Your task to perform on an android device: snooze an email in the gmail app Image 0: 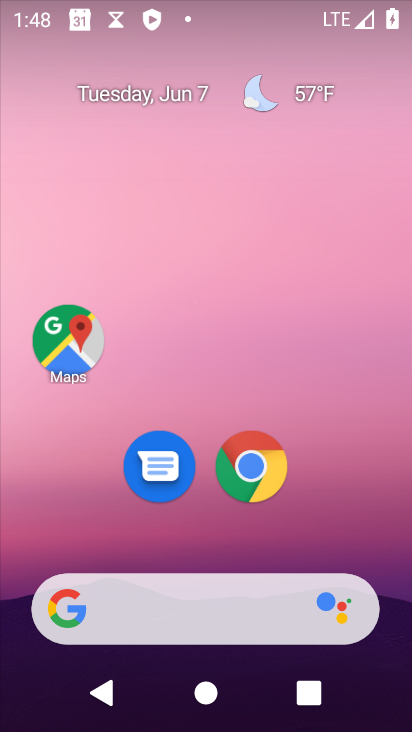
Step 0: drag from (180, 539) to (232, 82)
Your task to perform on an android device: snooze an email in the gmail app Image 1: 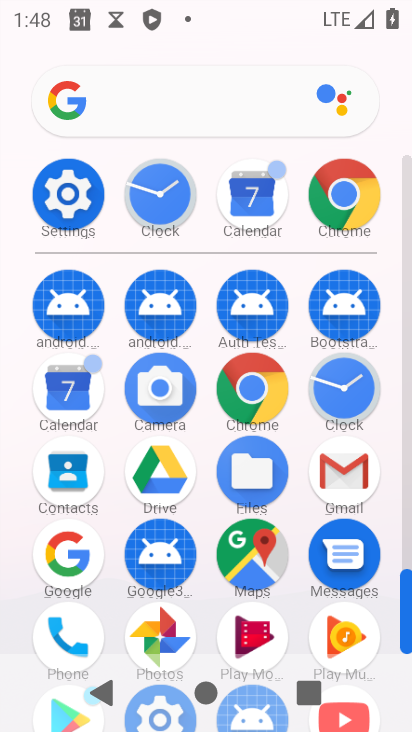
Step 1: click (353, 467)
Your task to perform on an android device: snooze an email in the gmail app Image 2: 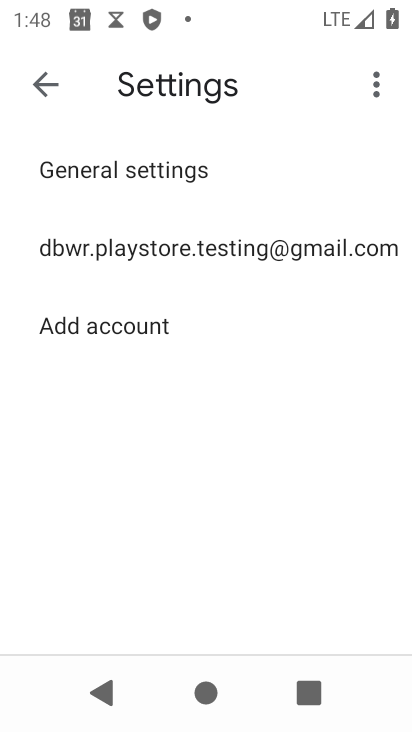
Step 2: press back button
Your task to perform on an android device: snooze an email in the gmail app Image 3: 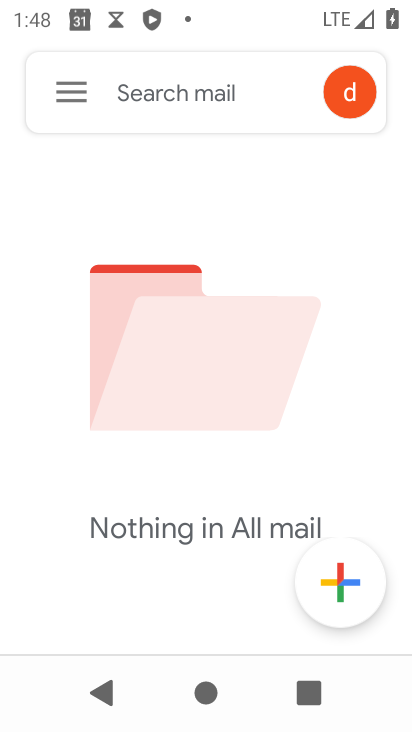
Step 3: click (63, 87)
Your task to perform on an android device: snooze an email in the gmail app Image 4: 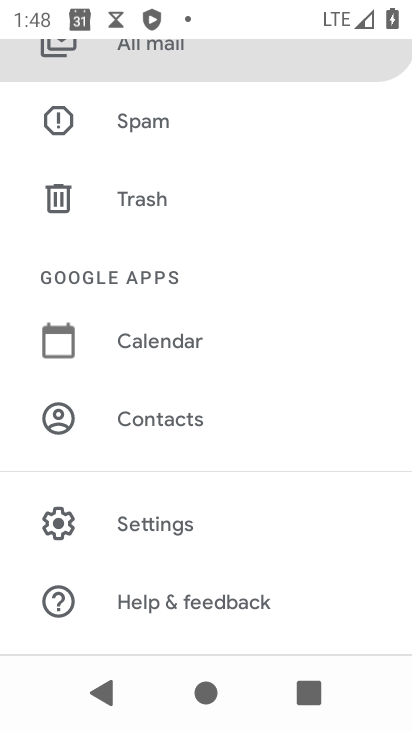
Step 4: drag from (240, 214) to (205, 596)
Your task to perform on an android device: snooze an email in the gmail app Image 5: 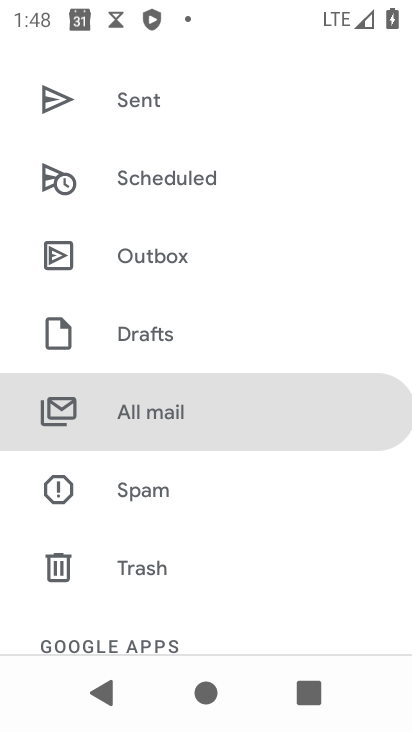
Step 5: click (167, 405)
Your task to perform on an android device: snooze an email in the gmail app Image 6: 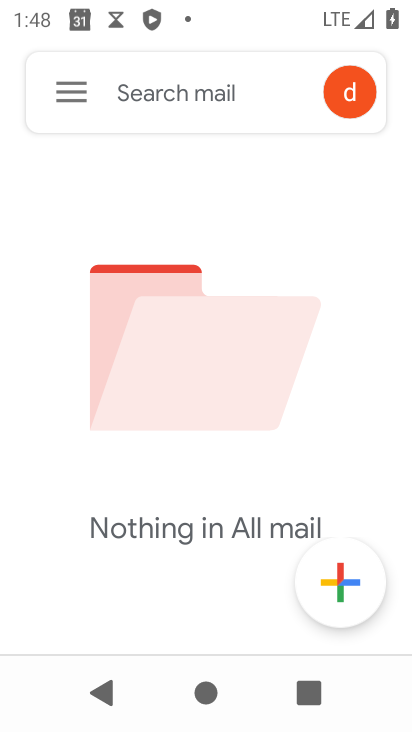
Step 6: task complete